Your task to perform on an android device: turn off priority inbox in the gmail app Image 0: 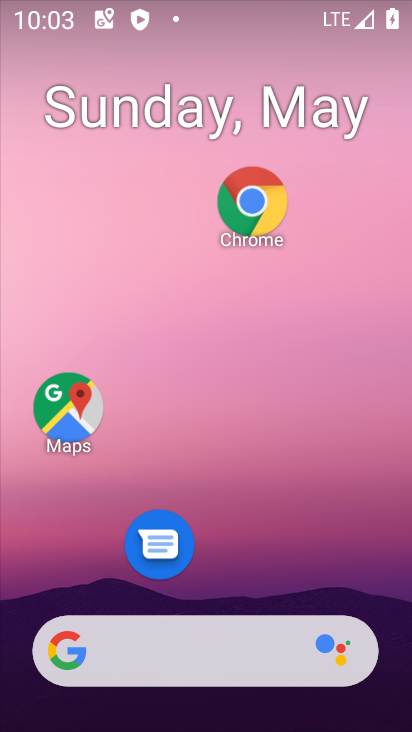
Step 0: drag from (267, 554) to (271, 13)
Your task to perform on an android device: turn off priority inbox in the gmail app Image 1: 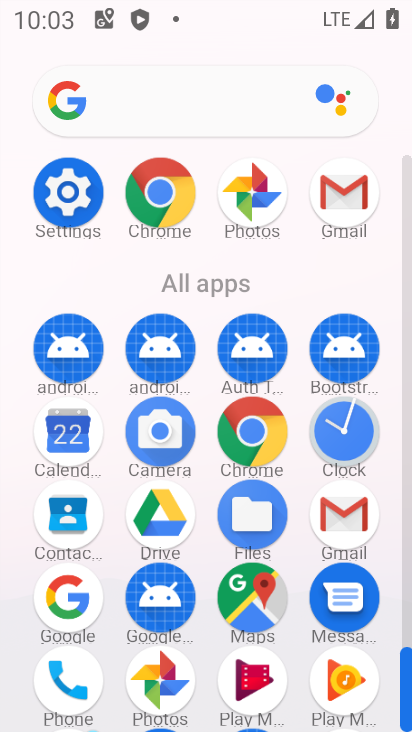
Step 1: click (344, 181)
Your task to perform on an android device: turn off priority inbox in the gmail app Image 2: 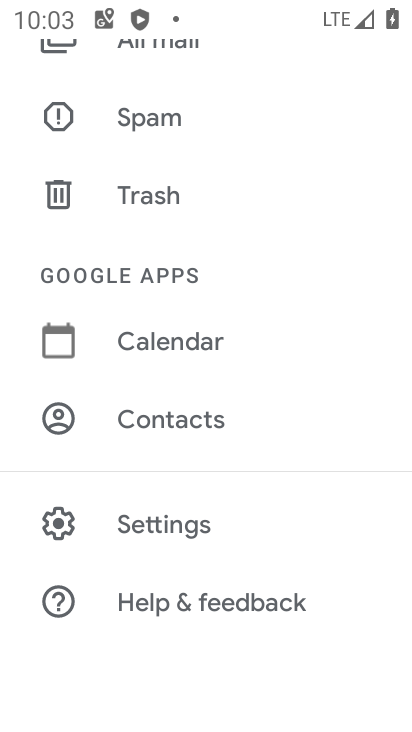
Step 2: click (161, 526)
Your task to perform on an android device: turn off priority inbox in the gmail app Image 3: 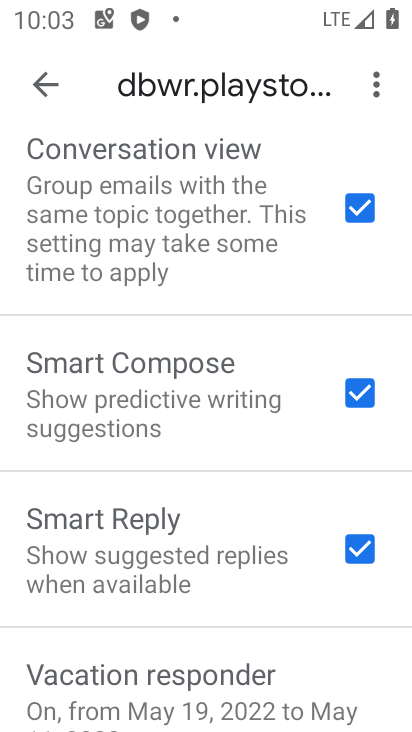
Step 3: drag from (239, 582) to (268, 650)
Your task to perform on an android device: turn off priority inbox in the gmail app Image 4: 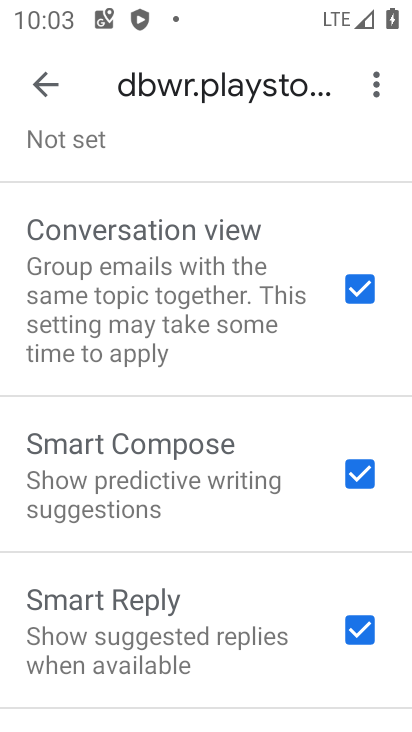
Step 4: drag from (117, 164) to (218, 687)
Your task to perform on an android device: turn off priority inbox in the gmail app Image 5: 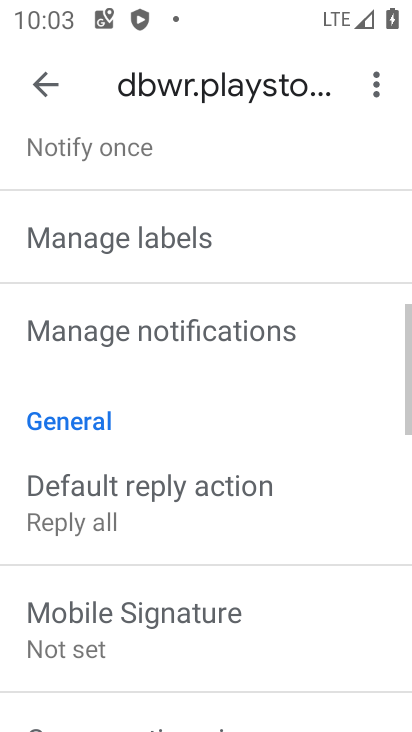
Step 5: drag from (102, 185) to (200, 634)
Your task to perform on an android device: turn off priority inbox in the gmail app Image 6: 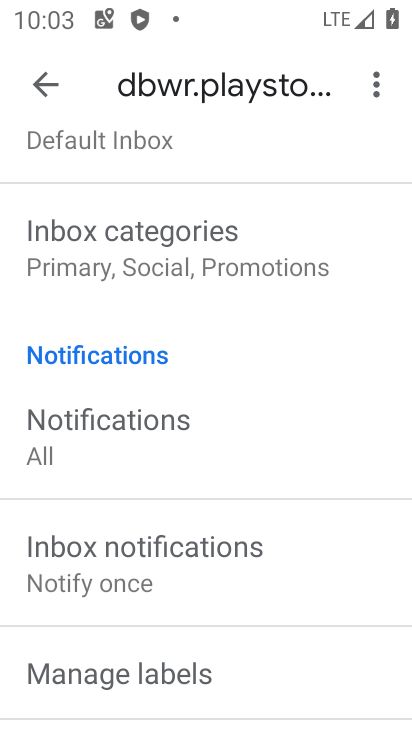
Step 6: drag from (77, 200) to (147, 497)
Your task to perform on an android device: turn off priority inbox in the gmail app Image 7: 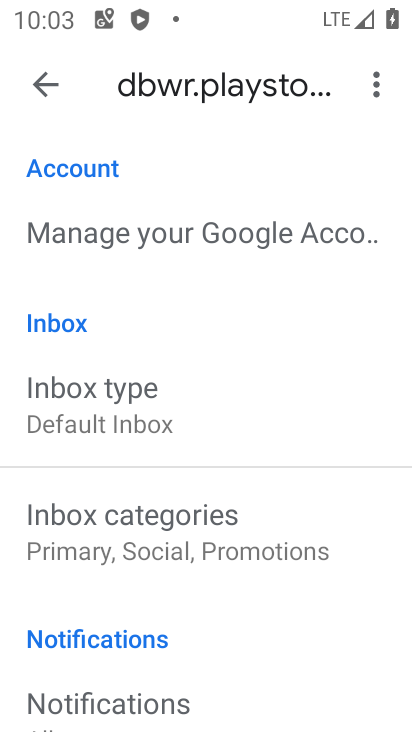
Step 7: click (99, 407)
Your task to perform on an android device: turn off priority inbox in the gmail app Image 8: 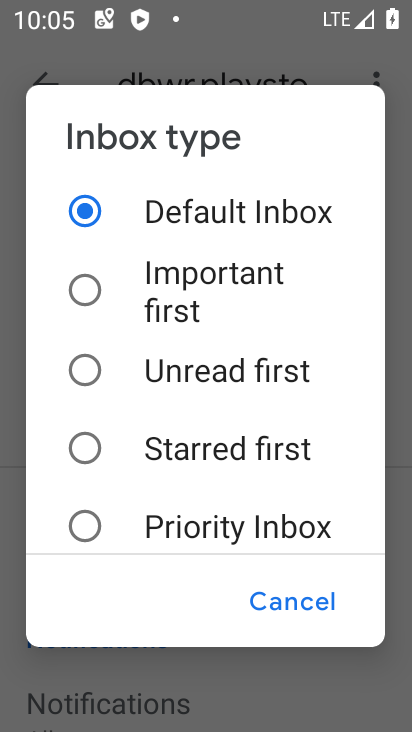
Step 8: task complete